Your task to perform on an android device: Open Google Chrome and click the shortcut for Amazon.com Image 0: 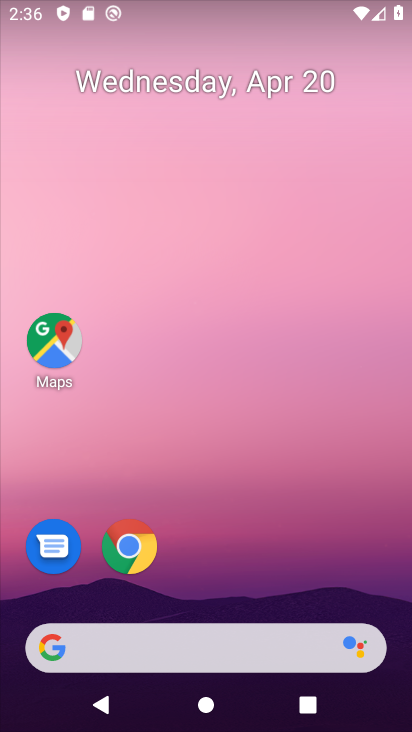
Step 0: click (148, 554)
Your task to perform on an android device: Open Google Chrome and click the shortcut for Amazon.com Image 1: 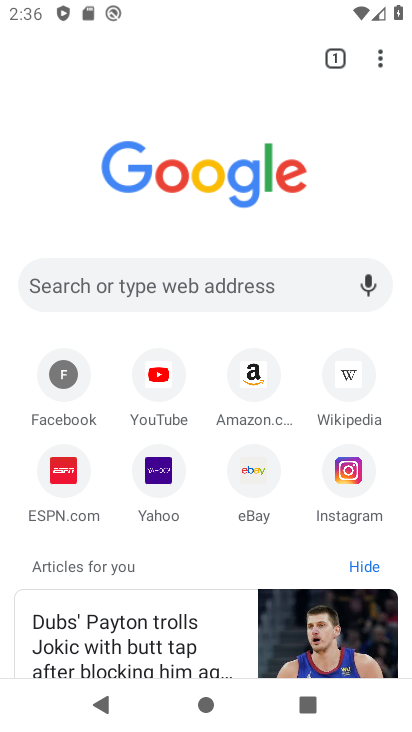
Step 1: click (253, 389)
Your task to perform on an android device: Open Google Chrome and click the shortcut for Amazon.com Image 2: 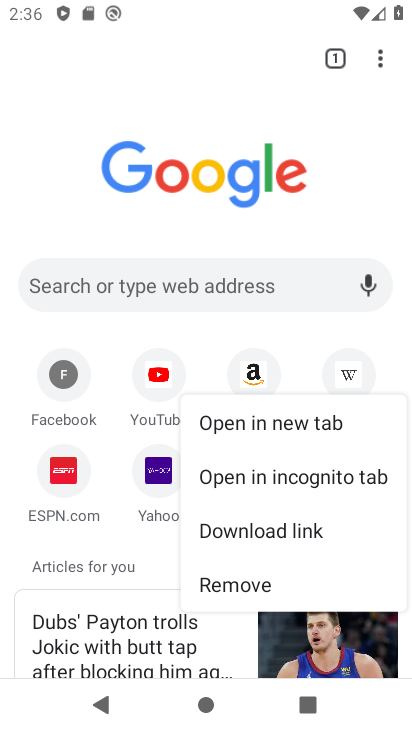
Step 2: click (263, 362)
Your task to perform on an android device: Open Google Chrome and click the shortcut for Amazon.com Image 3: 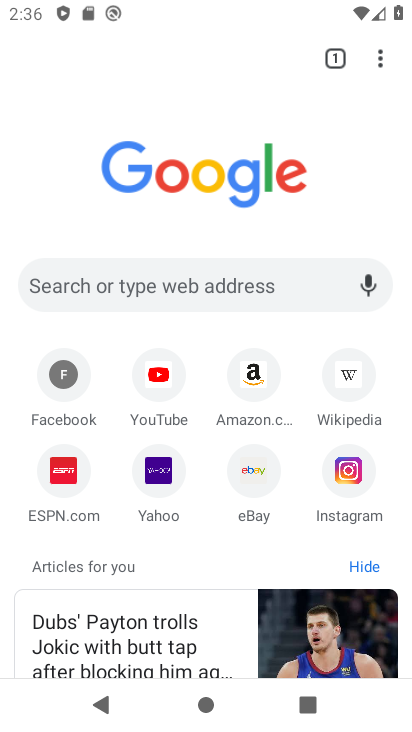
Step 3: click (258, 374)
Your task to perform on an android device: Open Google Chrome and click the shortcut for Amazon.com Image 4: 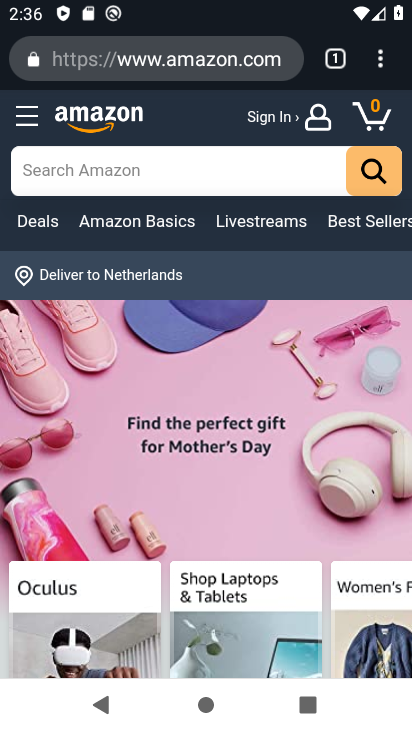
Step 4: task complete